Your task to perform on an android device: toggle priority inbox in the gmail app Image 0: 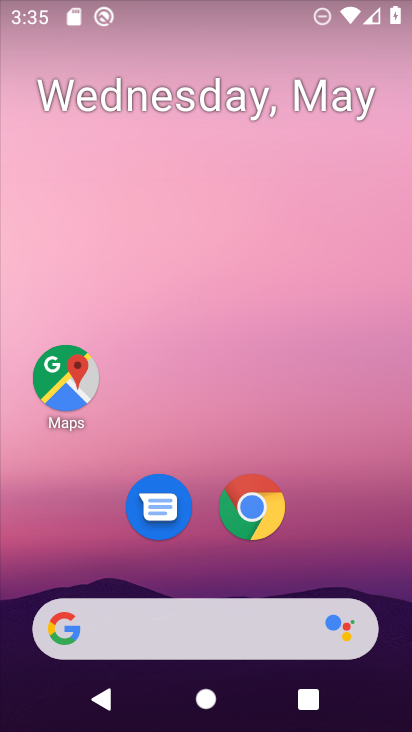
Step 0: drag from (210, 573) to (250, 132)
Your task to perform on an android device: toggle priority inbox in the gmail app Image 1: 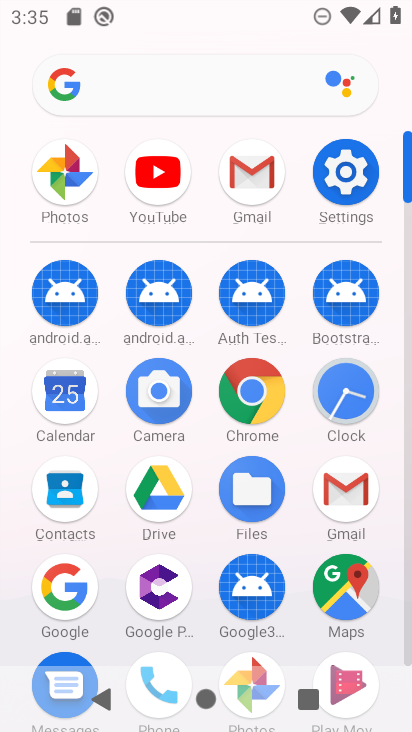
Step 1: click (346, 496)
Your task to perform on an android device: toggle priority inbox in the gmail app Image 2: 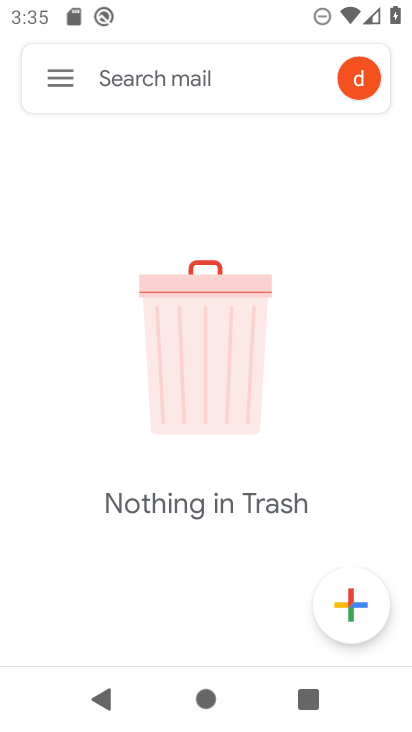
Step 2: click (73, 74)
Your task to perform on an android device: toggle priority inbox in the gmail app Image 3: 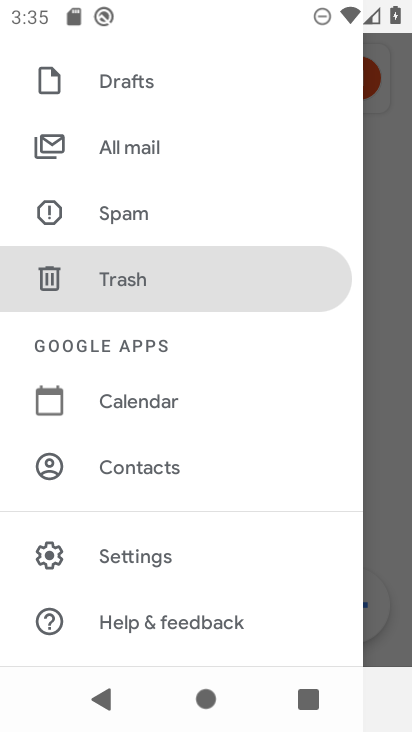
Step 3: drag from (140, 560) to (196, 358)
Your task to perform on an android device: toggle priority inbox in the gmail app Image 4: 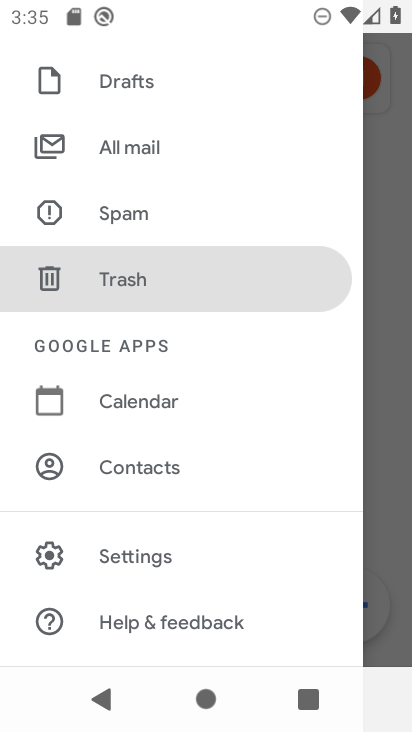
Step 4: click (153, 562)
Your task to perform on an android device: toggle priority inbox in the gmail app Image 5: 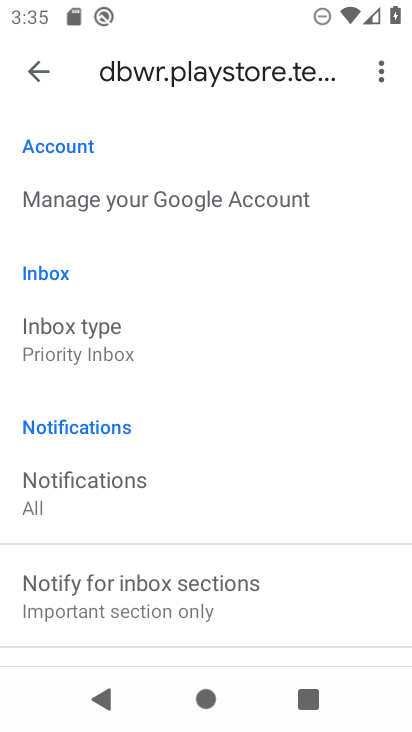
Step 5: click (89, 364)
Your task to perform on an android device: toggle priority inbox in the gmail app Image 6: 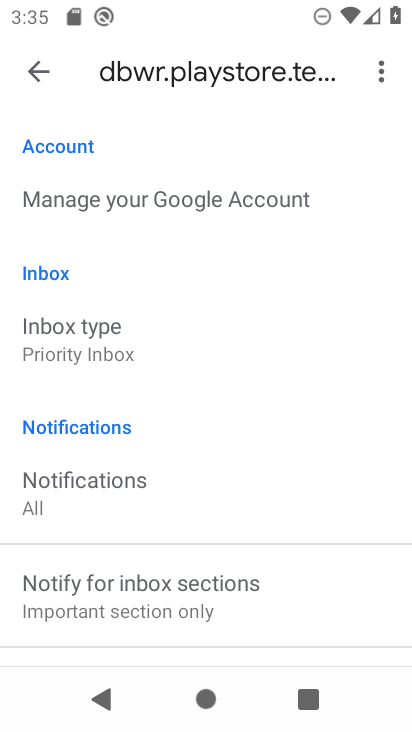
Step 6: click (100, 349)
Your task to perform on an android device: toggle priority inbox in the gmail app Image 7: 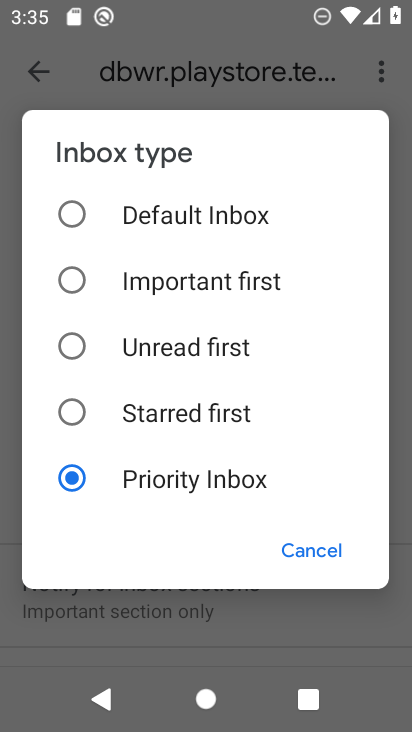
Step 7: click (146, 204)
Your task to perform on an android device: toggle priority inbox in the gmail app Image 8: 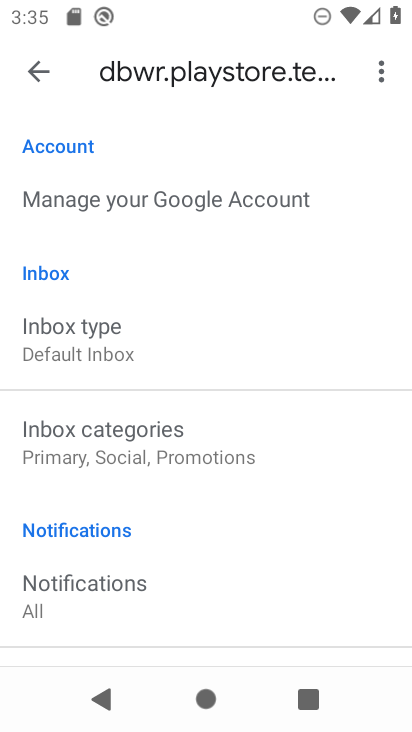
Step 8: task complete